Your task to perform on an android device: Open internet settings Image 0: 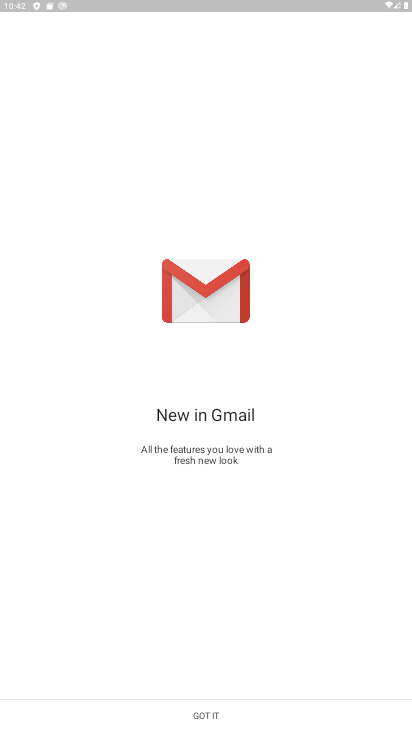
Step 0: press home button
Your task to perform on an android device: Open internet settings Image 1: 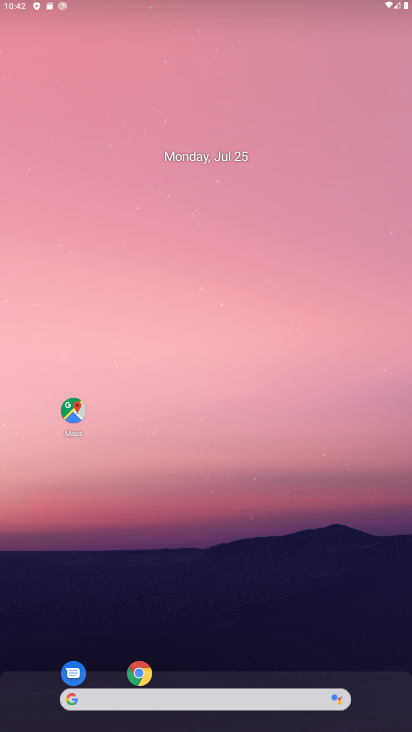
Step 1: drag from (230, 560) to (153, 33)
Your task to perform on an android device: Open internet settings Image 2: 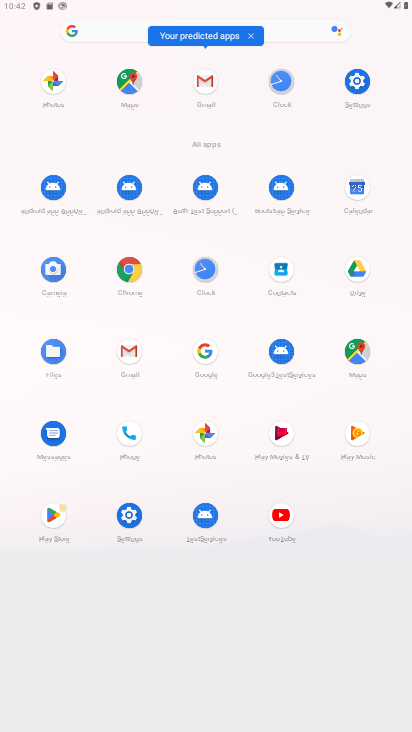
Step 2: click (363, 77)
Your task to perform on an android device: Open internet settings Image 3: 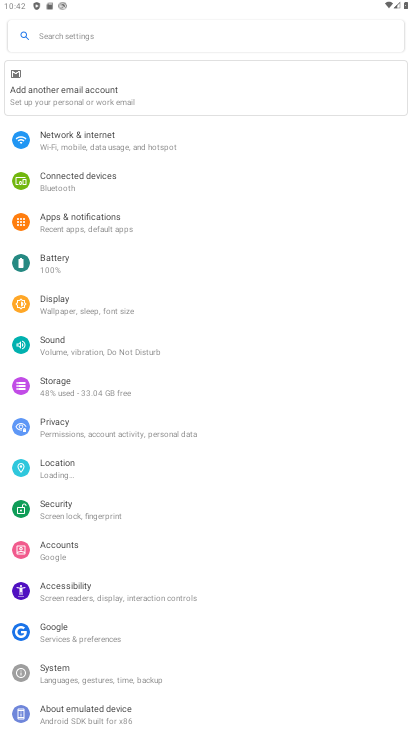
Step 3: task complete